Your task to perform on an android device: open chrome and create a bookmark for the current page Image 0: 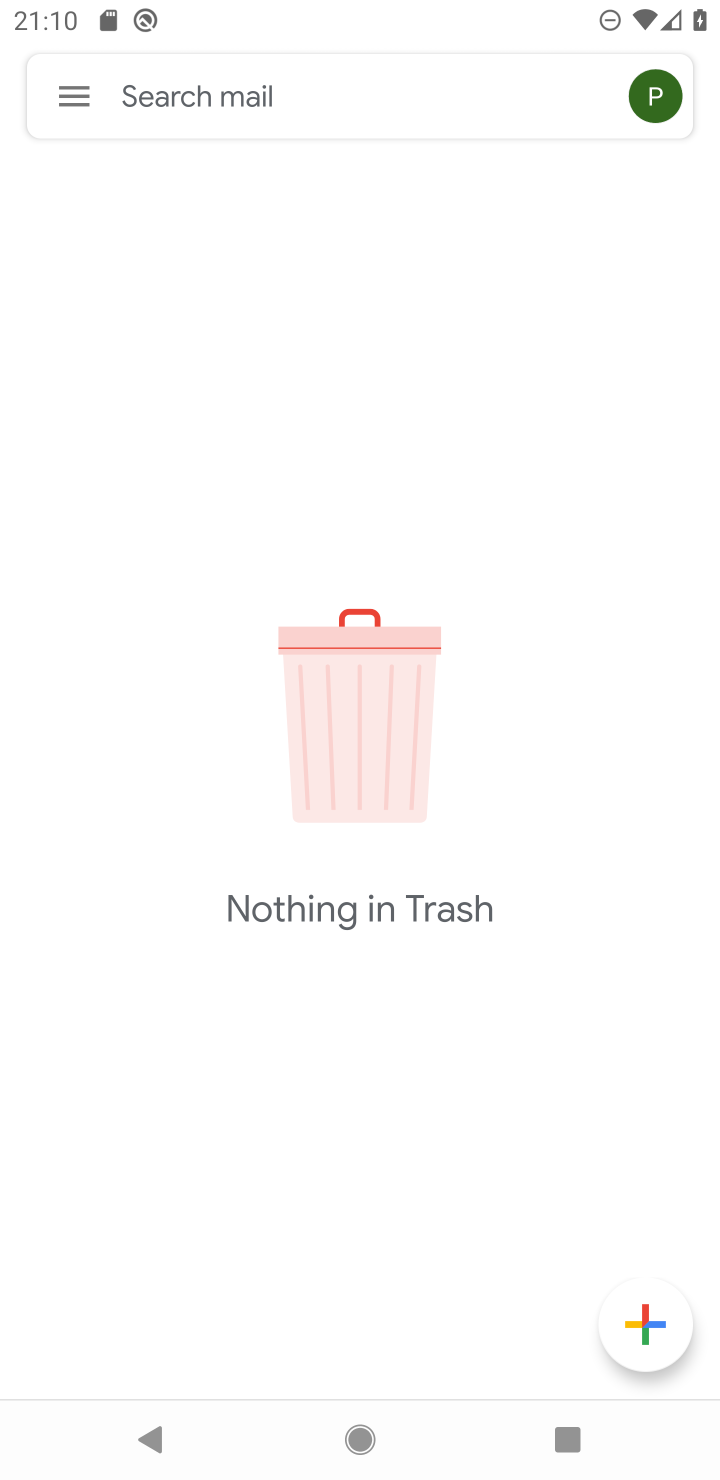
Step 0: press home button
Your task to perform on an android device: open chrome and create a bookmark for the current page Image 1: 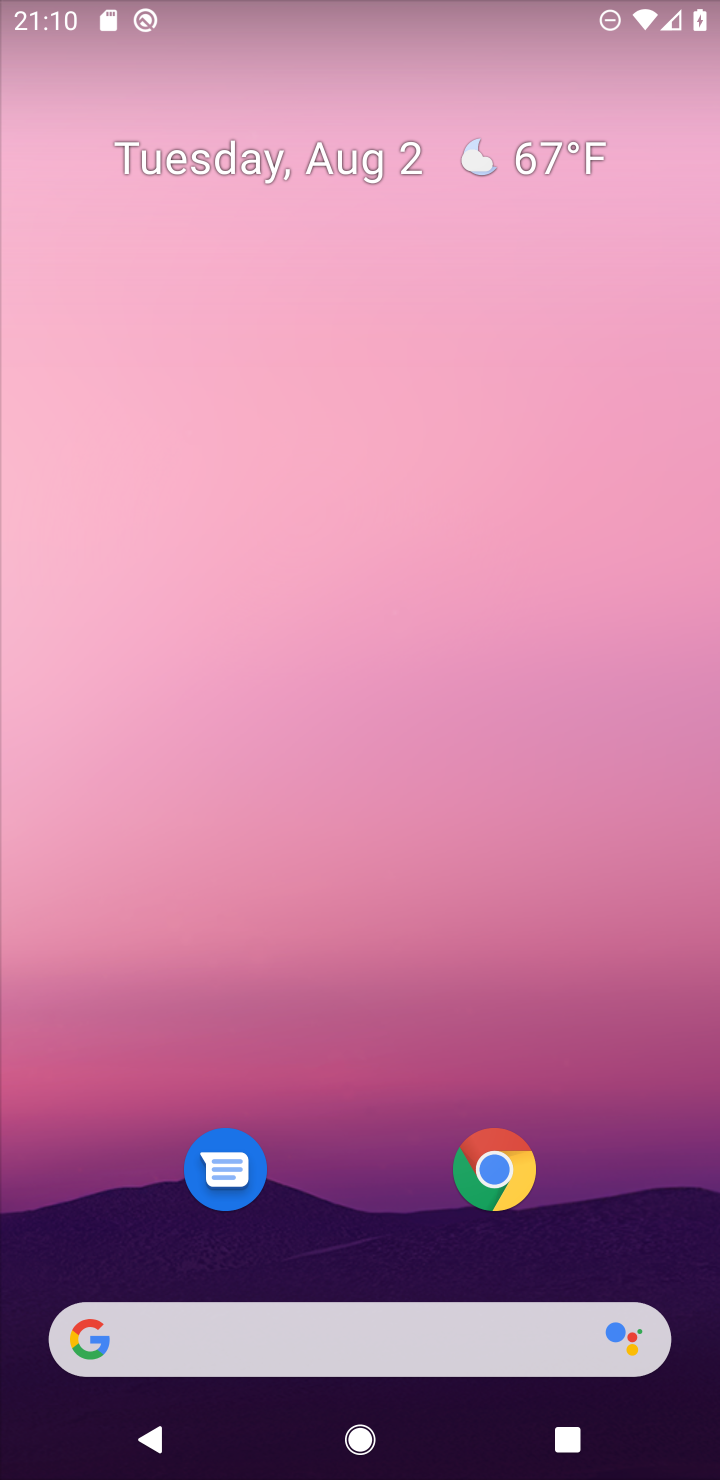
Step 1: drag from (404, 1406) to (366, 168)
Your task to perform on an android device: open chrome and create a bookmark for the current page Image 2: 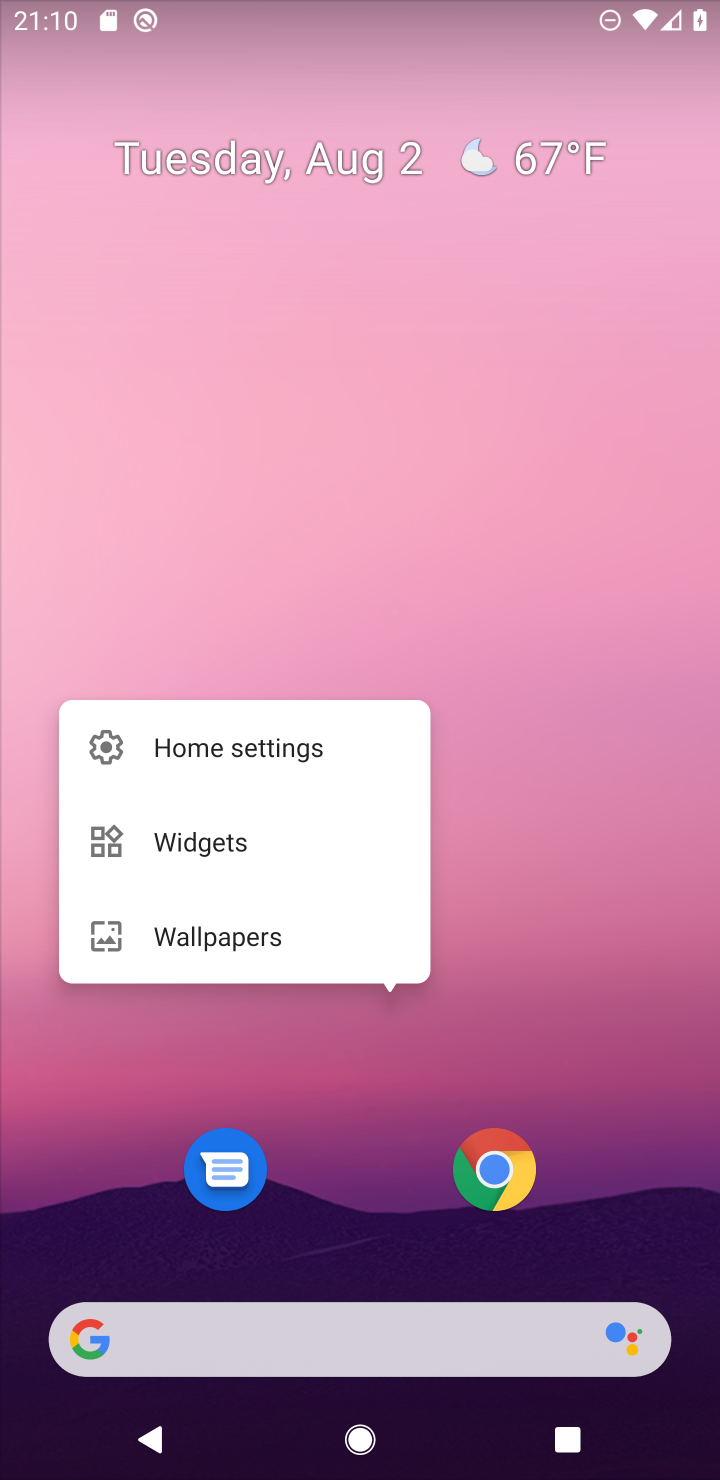
Step 2: click (567, 677)
Your task to perform on an android device: open chrome and create a bookmark for the current page Image 3: 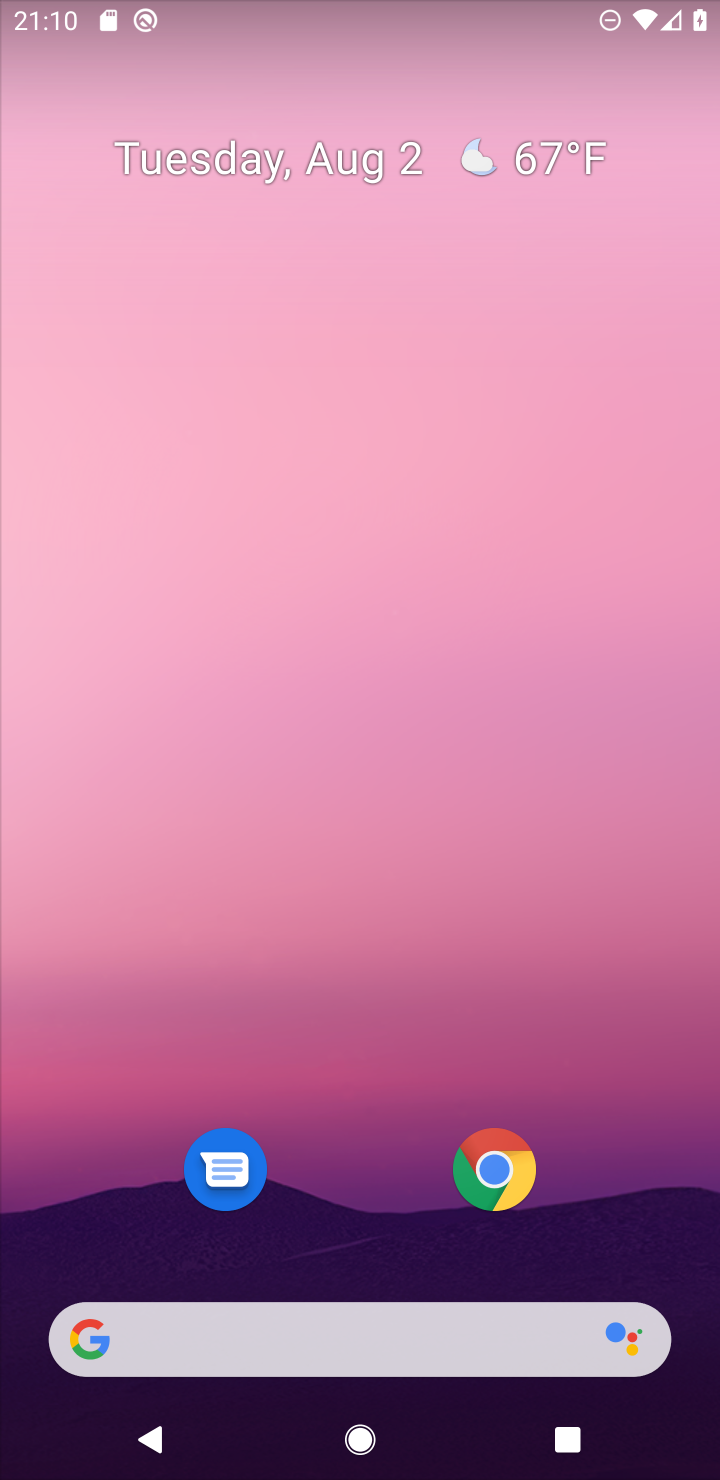
Step 3: drag from (322, 1146) to (280, 146)
Your task to perform on an android device: open chrome and create a bookmark for the current page Image 4: 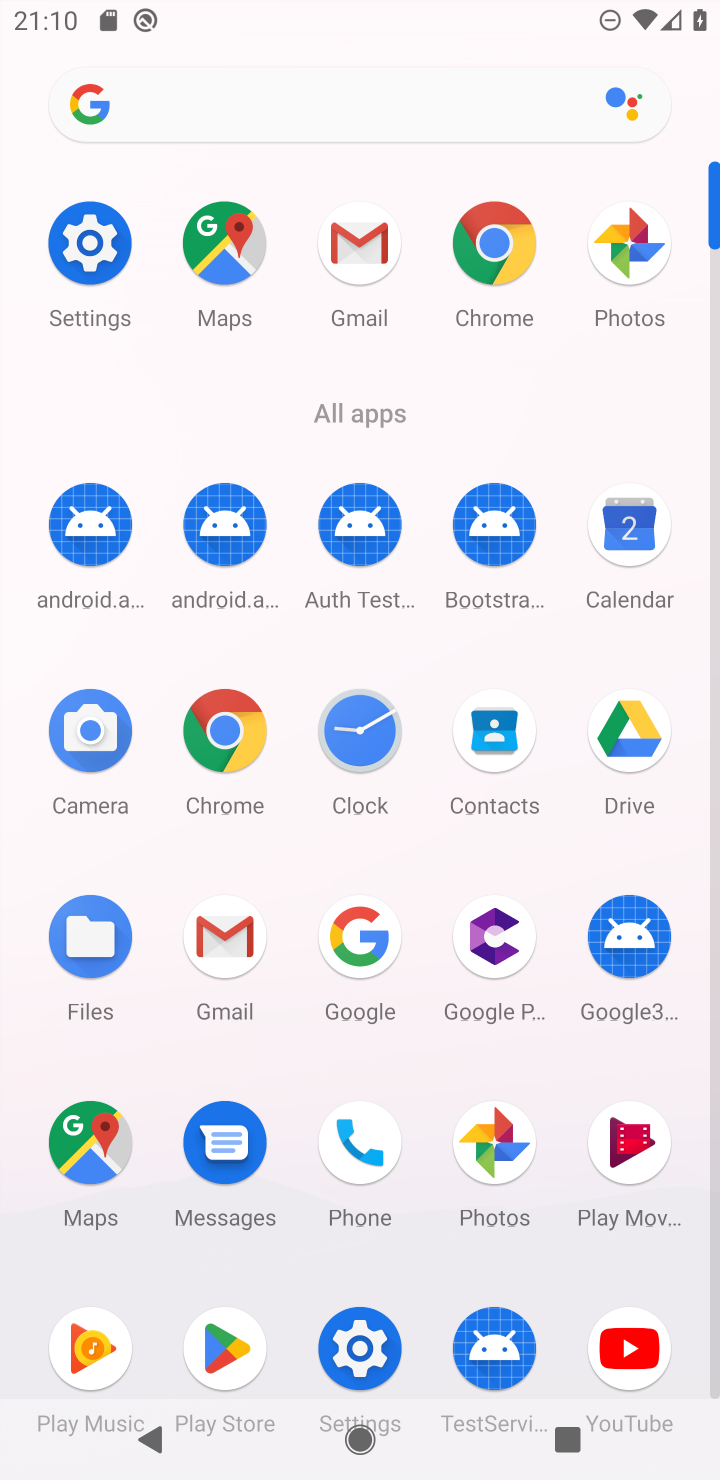
Step 4: click (221, 722)
Your task to perform on an android device: open chrome and create a bookmark for the current page Image 5: 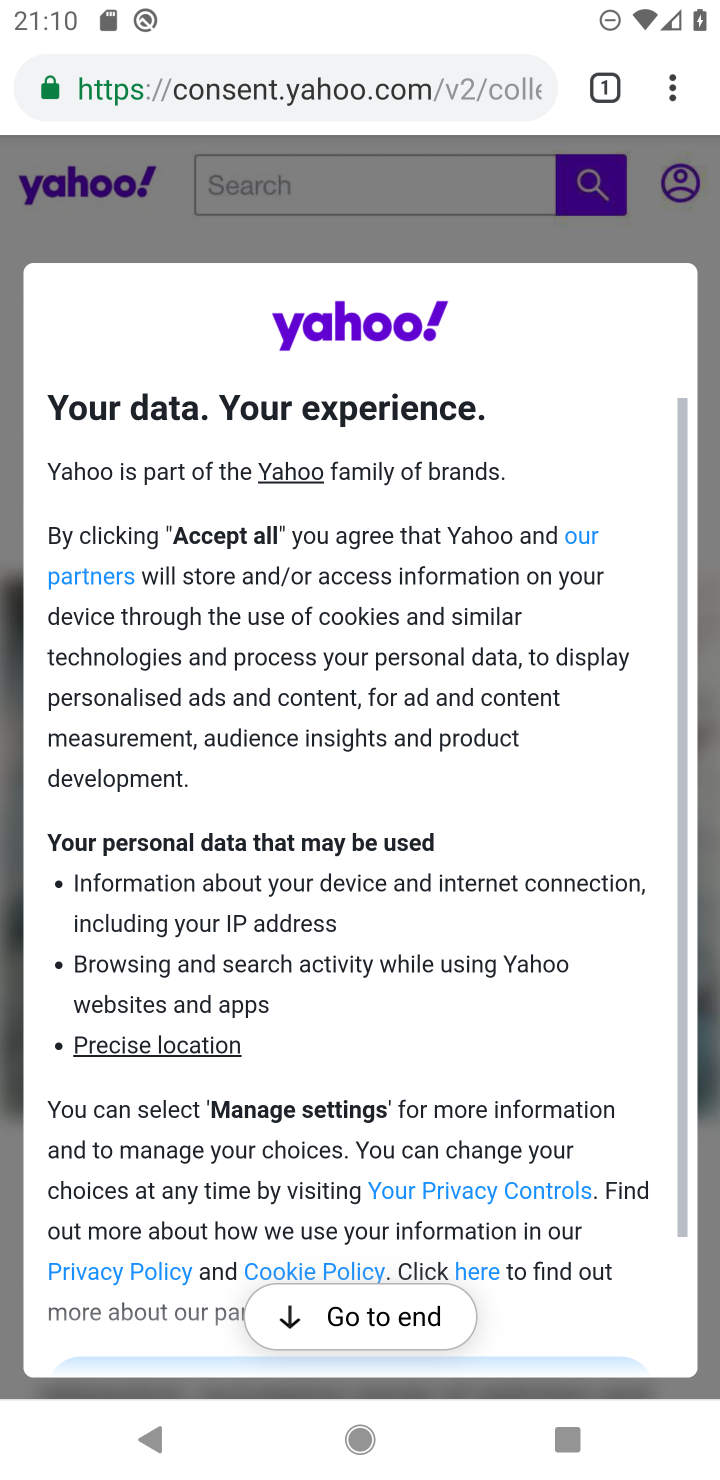
Step 5: click (667, 99)
Your task to perform on an android device: open chrome and create a bookmark for the current page Image 6: 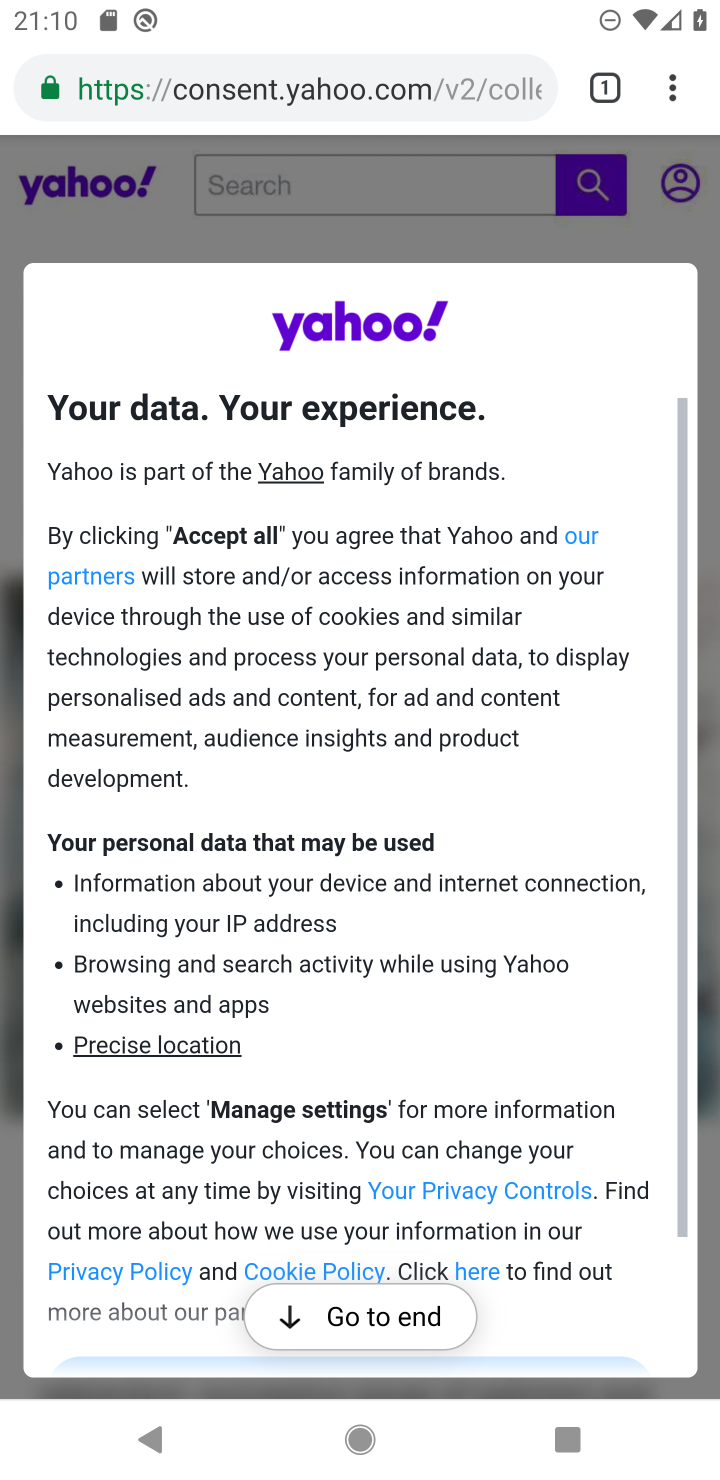
Step 6: click (669, 92)
Your task to perform on an android device: open chrome and create a bookmark for the current page Image 7: 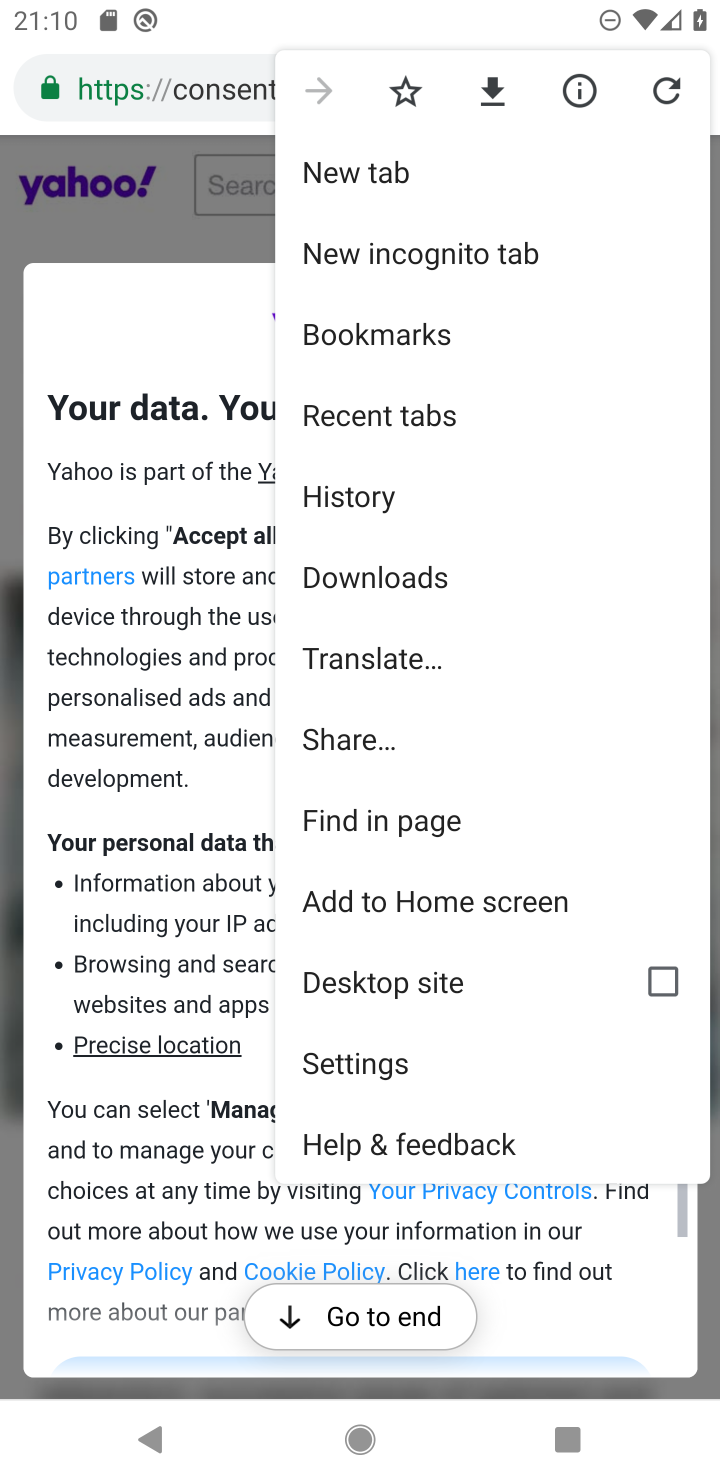
Step 7: click (402, 93)
Your task to perform on an android device: open chrome and create a bookmark for the current page Image 8: 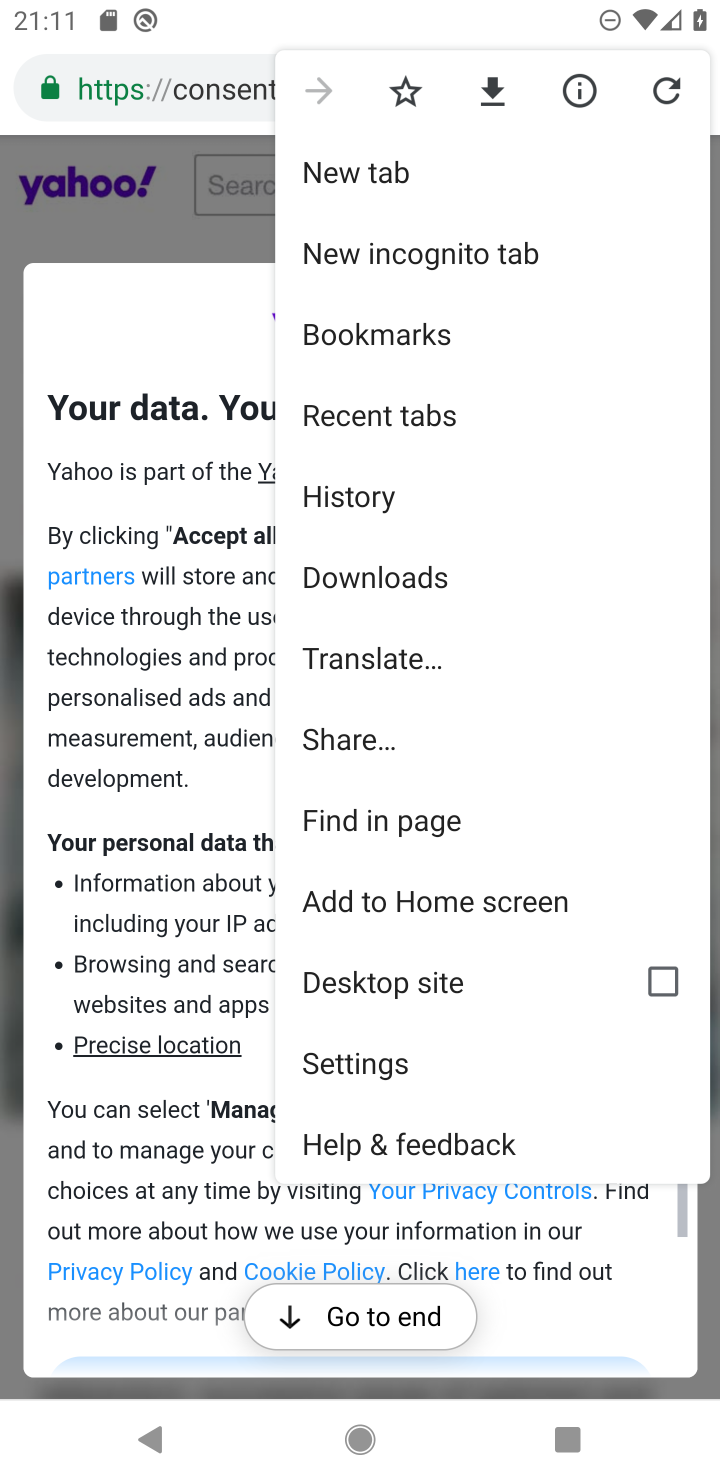
Step 8: task complete